Your task to perform on an android device: add a contact in the contacts app Image 0: 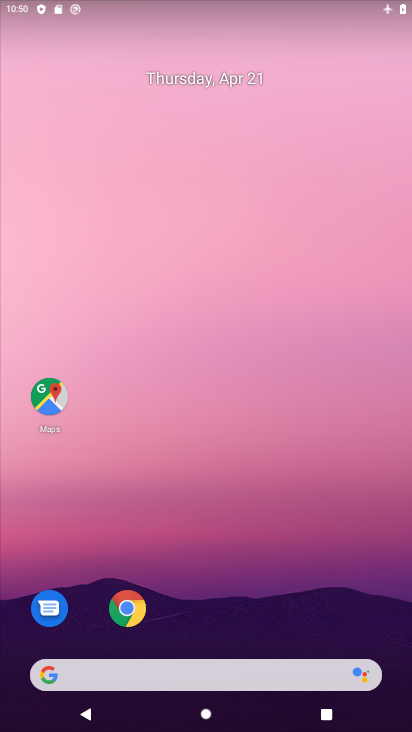
Step 0: drag from (230, 561) to (262, 278)
Your task to perform on an android device: add a contact in the contacts app Image 1: 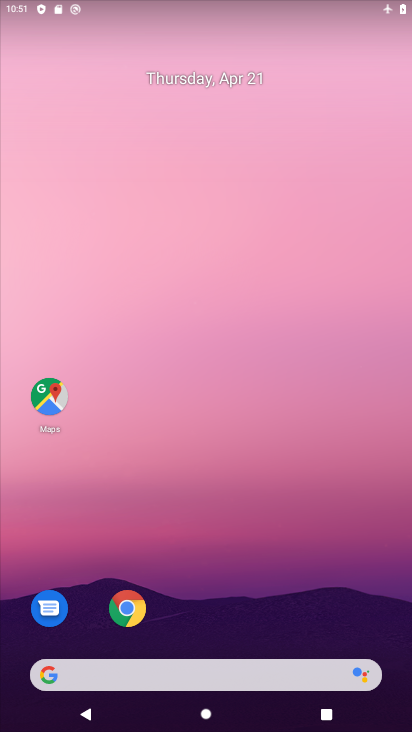
Step 1: drag from (167, 628) to (228, 182)
Your task to perform on an android device: add a contact in the contacts app Image 2: 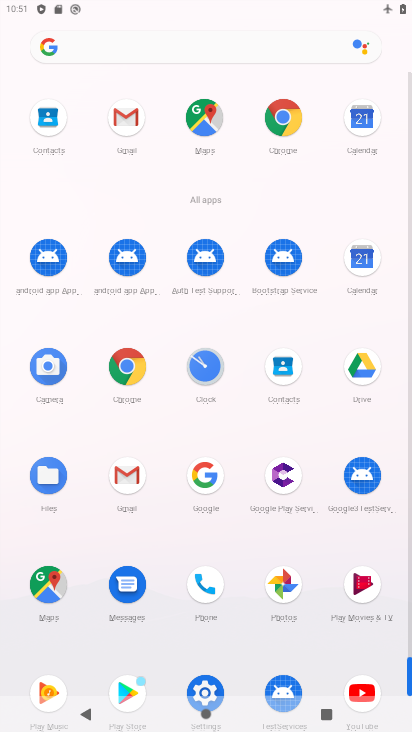
Step 2: click (354, 263)
Your task to perform on an android device: add a contact in the contacts app Image 3: 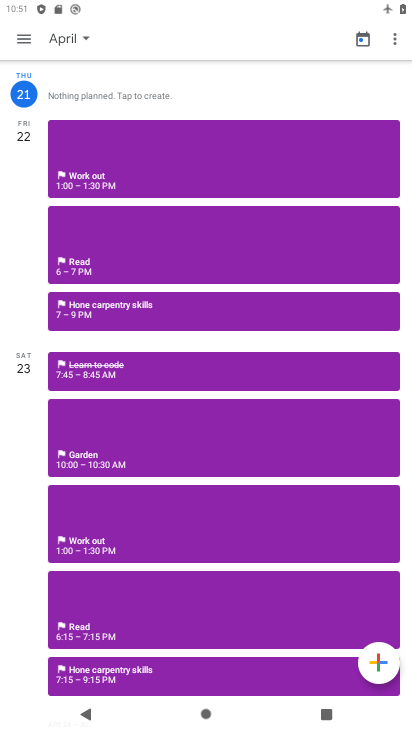
Step 3: press home button
Your task to perform on an android device: add a contact in the contacts app Image 4: 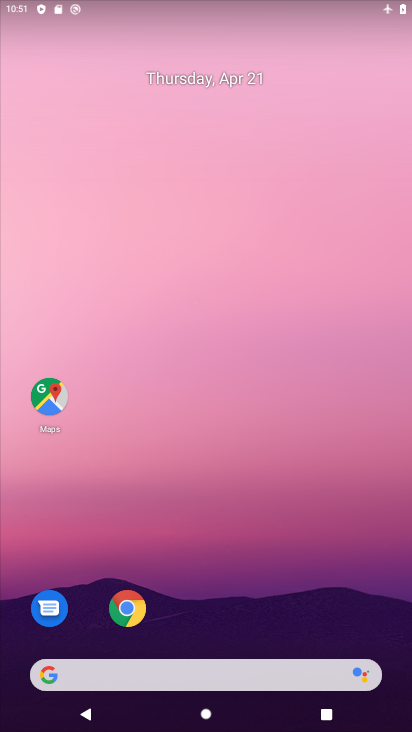
Step 4: drag from (207, 522) to (373, 61)
Your task to perform on an android device: add a contact in the contacts app Image 5: 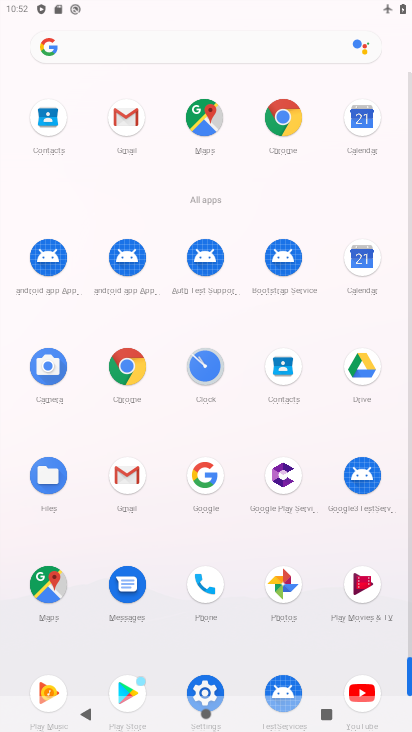
Step 5: click (292, 365)
Your task to perform on an android device: add a contact in the contacts app Image 6: 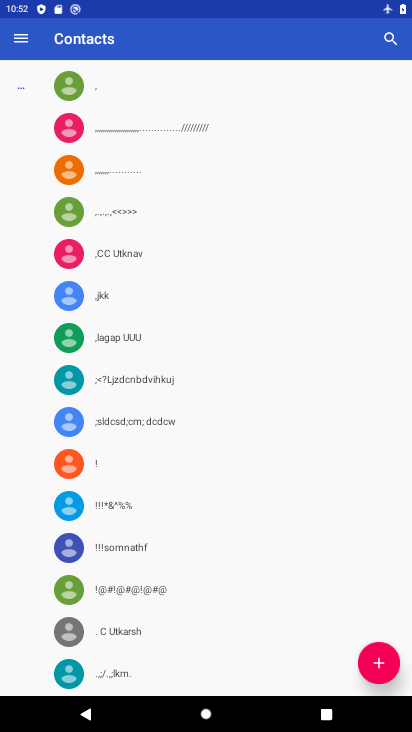
Step 6: click (381, 672)
Your task to perform on an android device: add a contact in the contacts app Image 7: 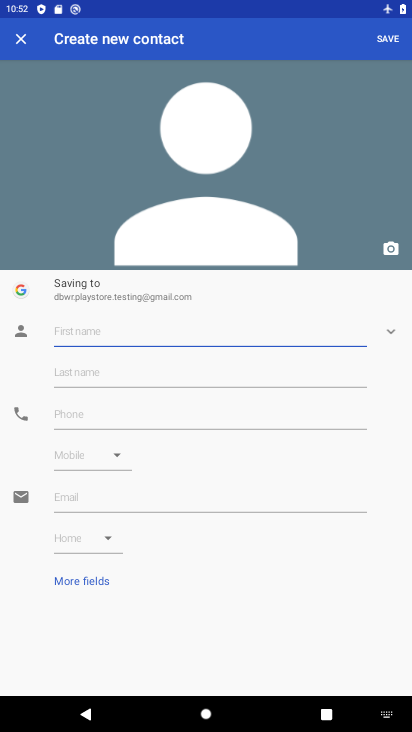
Step 7: click (108, 336)
Your task to perform on an android device: add a contact in the contacts app Image 8: 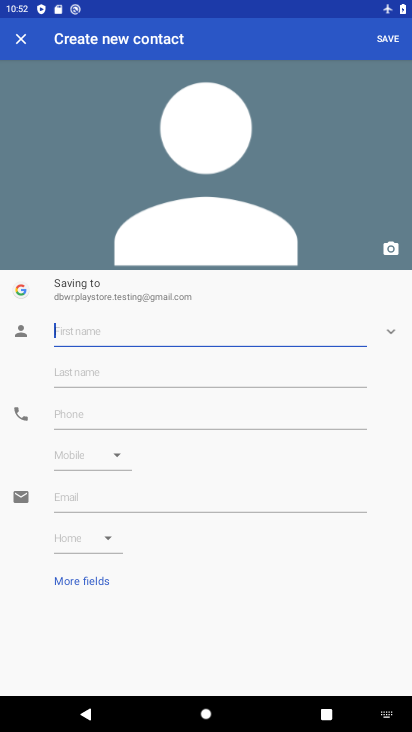
Step 8: type "gvhgvhg"
Your task to perform on an android device: add a contact in the contacts app Image 9: 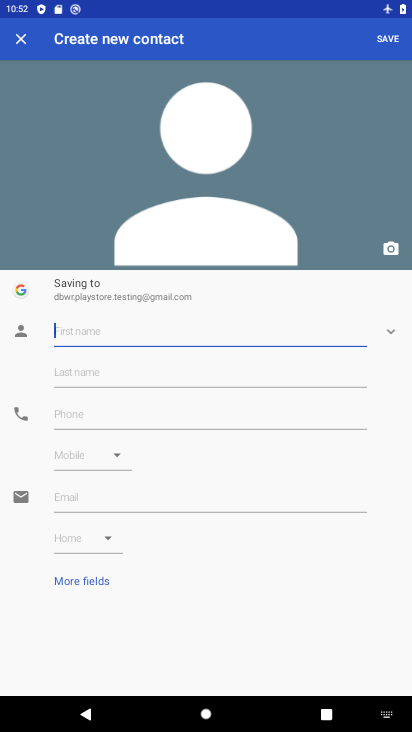
Step 9: click (95, 380)
Your task to perform on an android device: add a contact in the contacts app Image 10: 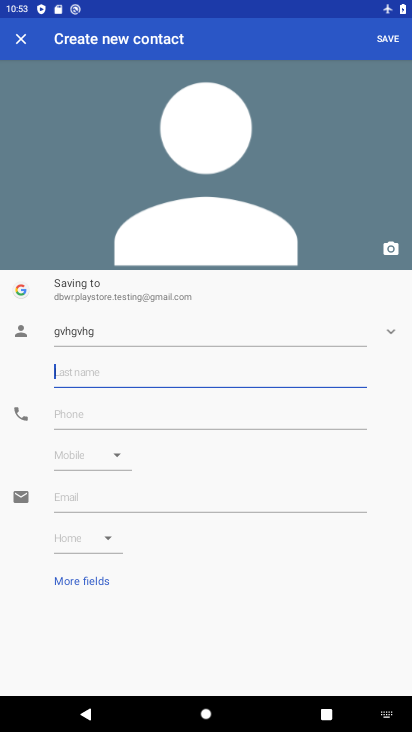
Step 10: type "gcffghg"
Your task to perform on an android device: add a contact in the contacts app Image 11: 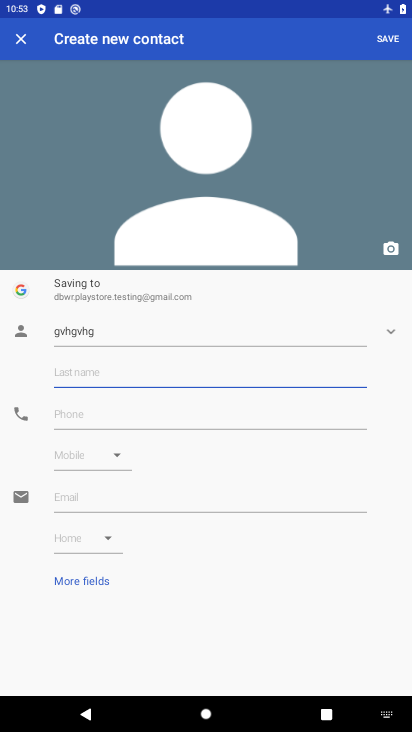
Step 11: click (139, 416)
Your task to perform on an android device: add a contact in the contacts app Image 12: 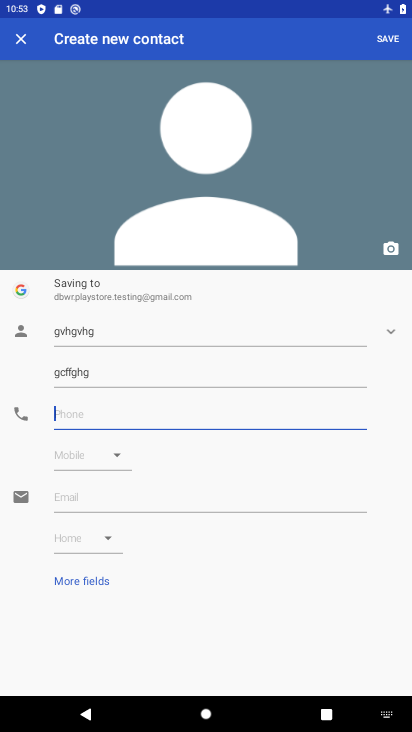
Step 12: type "6757"
Your task to perform on an android device: add a contact in the contacts app Image 13: 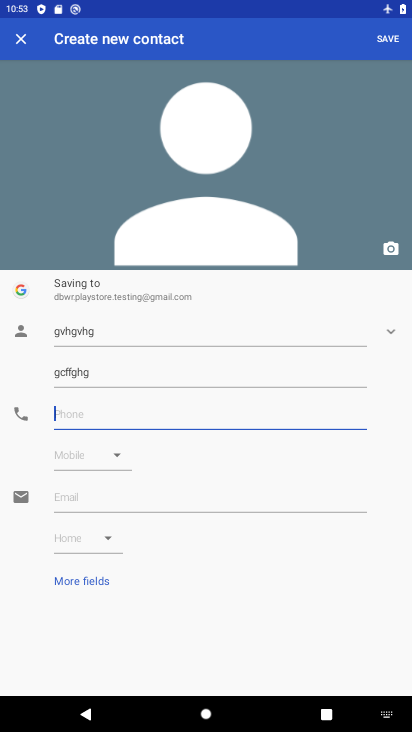
Step 13: click (67, 533)
Your task to perform on an android device: add a contact in the contacts app Image 14: 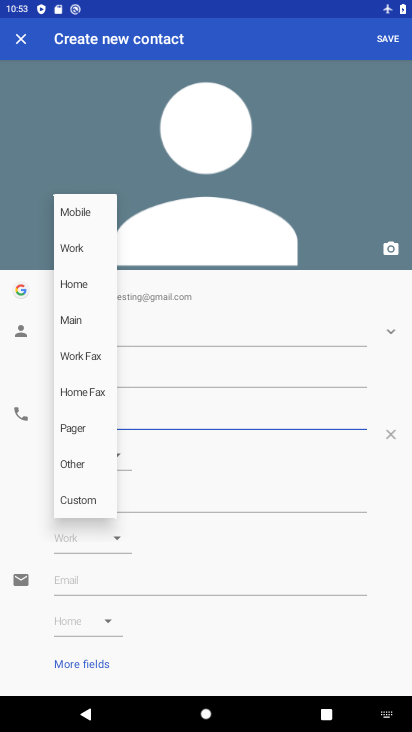
Step 14: click (378, 37)
Your task to perform on an android device: add a contact in the contacts app Image 15: 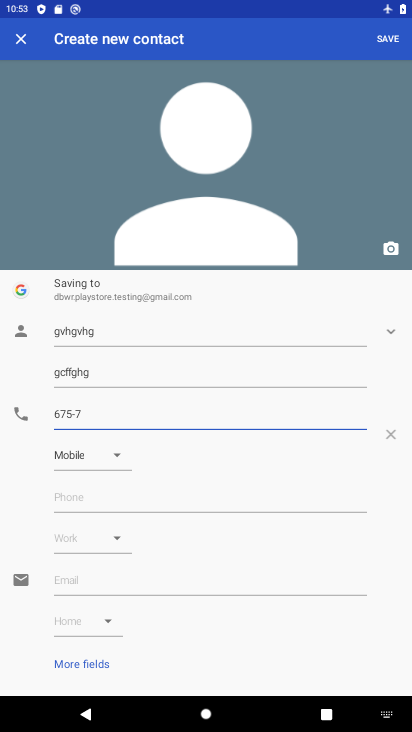
Step 15: click (401, 43)
Your task to perform on an android device: add a contact in the contacts app Image 16: 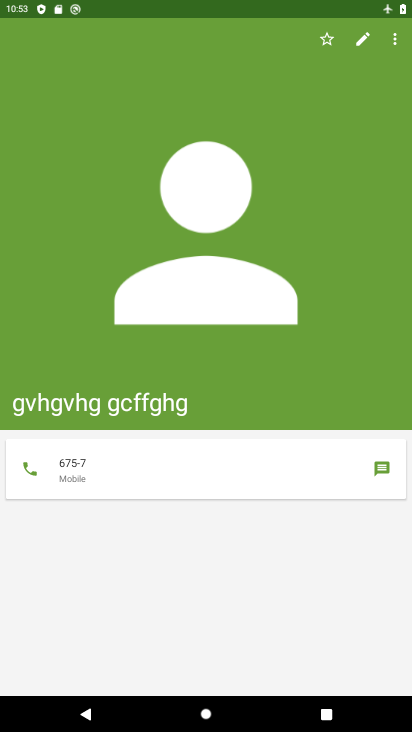
Step 16: task complete